Your task to perform on an android device: change keyboard looks Image 0: 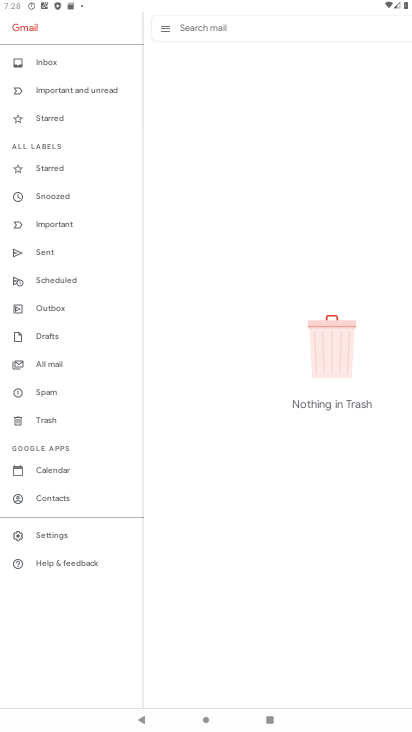
Step 0: press home button
Your task to perform on an android device: change keyboard looks Image 1: 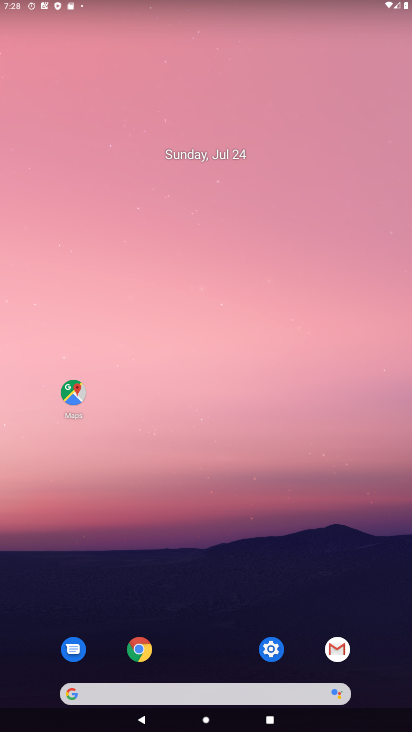
Step 1: click (267, 648)
Your task to perform on an android device: change keyboard looks Image 2: 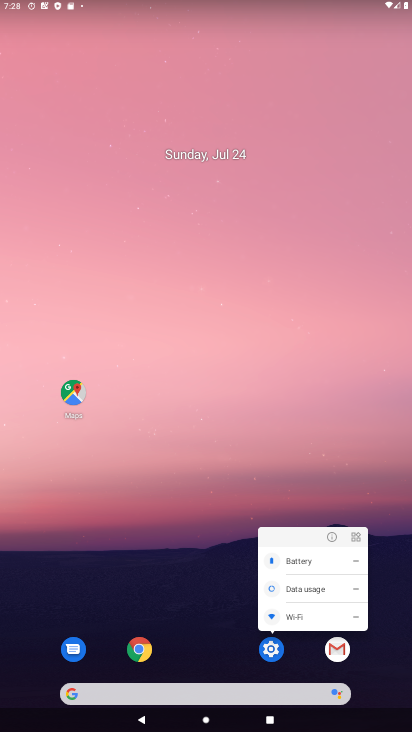
Step 2: click (277, 643)
Your task to perform on an android device: change keyboard looks Image 3: 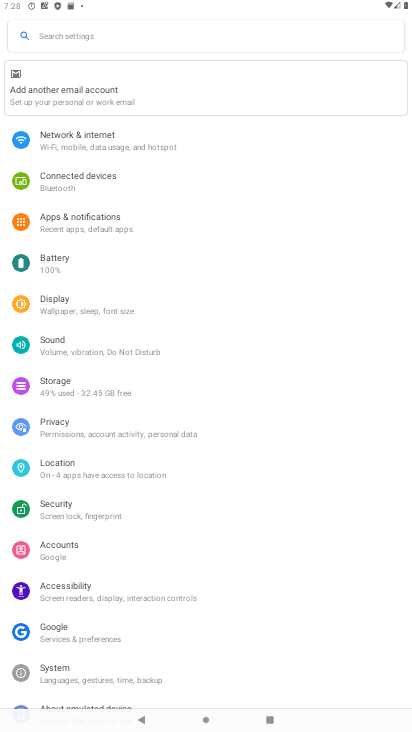
Step 3: click (130, 36)
Your task to perform on an android device: change keyboard looks Image 4: 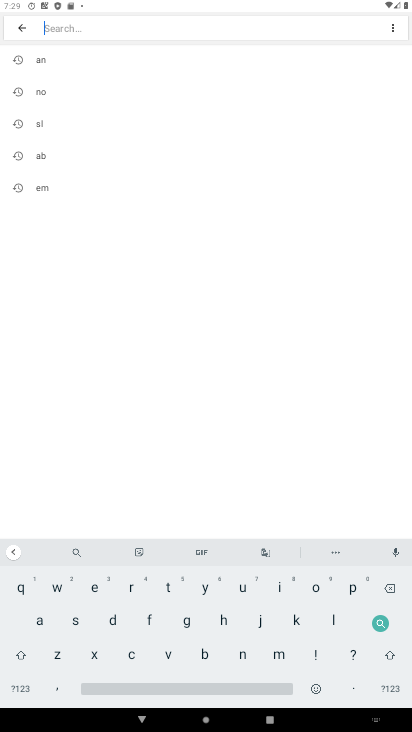
Step 4: click (298, 646)
Your task to perform on an android device: change keyboard looks Image 5: 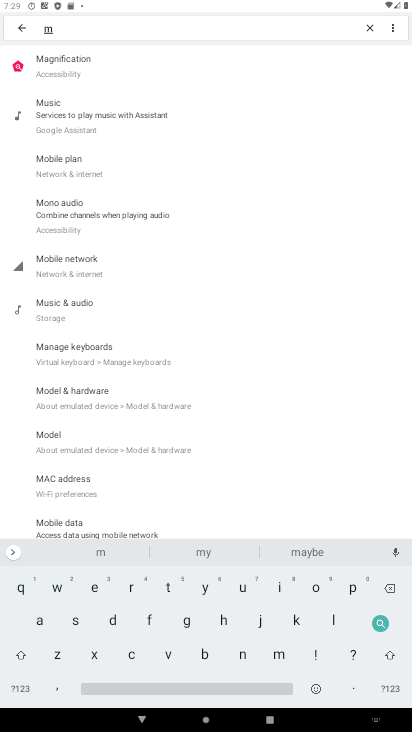
Step 5: click (386, 595)
Your task to perform on an android device: change keyboard looks Image 6: 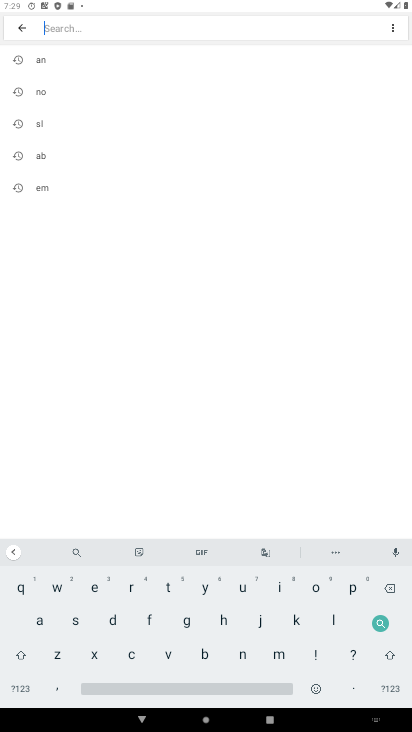
Step 6: click (296, 618)
Your task to perform on an android device: change keyboard looks Image 7: 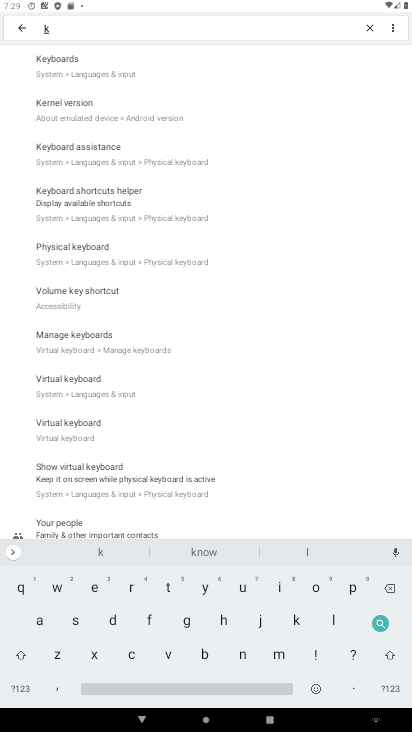
Step 7: click (92, 66)
Your task to perform on an android device: change keyboard looks Image 8: 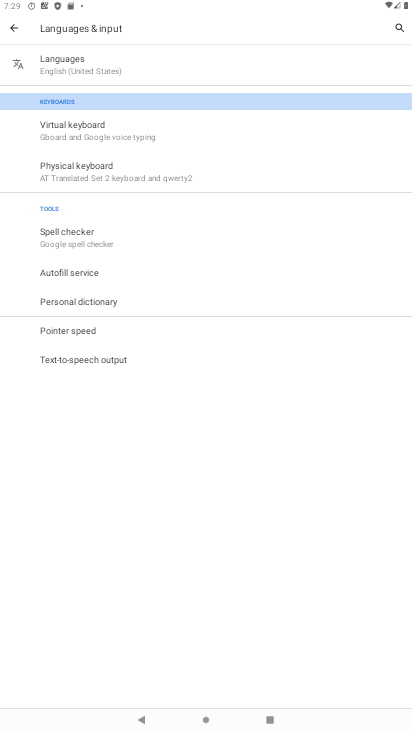
Step 8: click (68, 125)
Your task to perform on an android device: change keyboard looks Image 9: 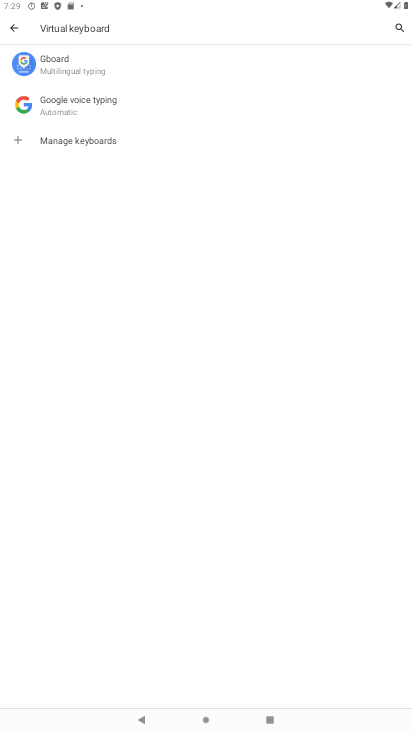
Step 9: click (92, 62)
Your task to perform on an android device: change keyboard looks Image 10: 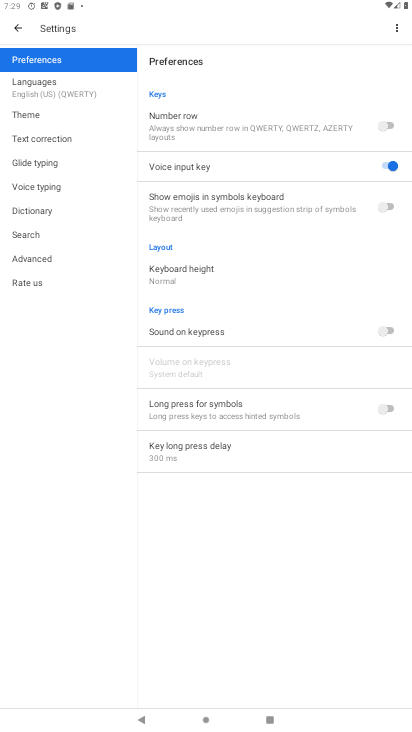
Step 10: click (45, 120)
Your task to perform on an android device: change keyboard looks Image 11: 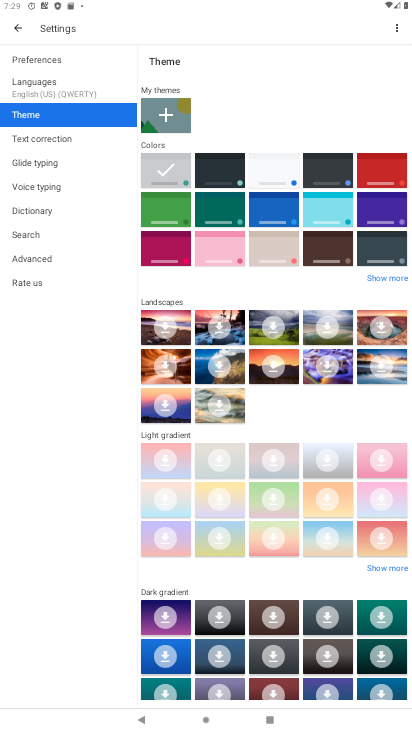
Step 11: click (219, 211)
Your task to perform on an android device: change keyboard looks Image 12: 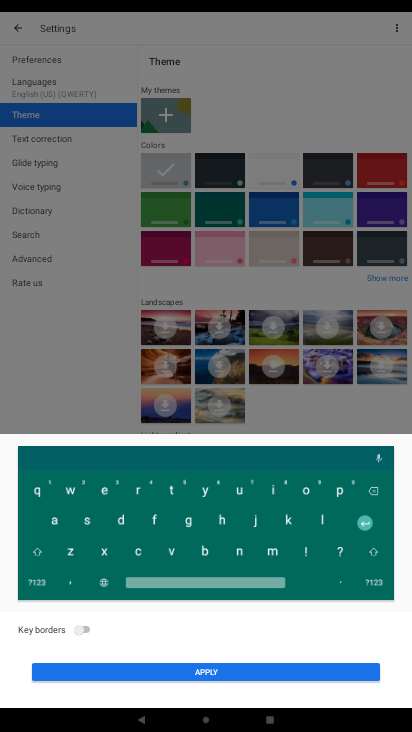
Step 12: click (84, 631)
Your task to perform on an android device: change keyboard looks Image 13: 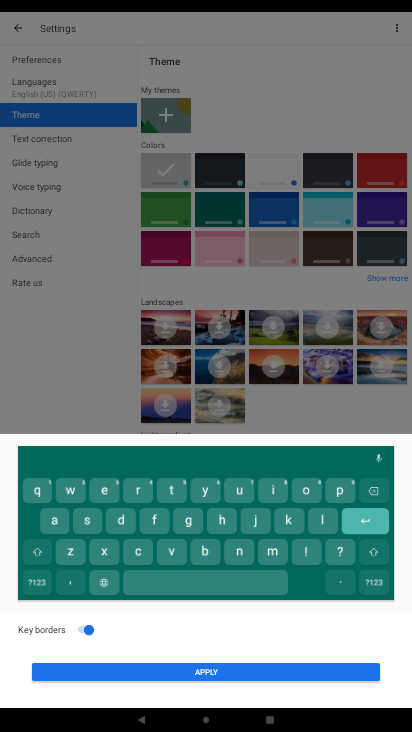
Step 13: click (150, 679)
Your task to perform on an android device: change keyboard looks Image 14: 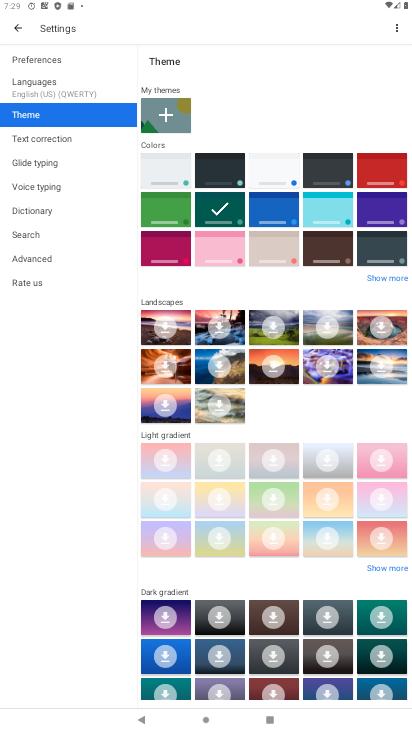
Step 14: task complete